Your task to perform on an android device: Open battery settings Image 0: 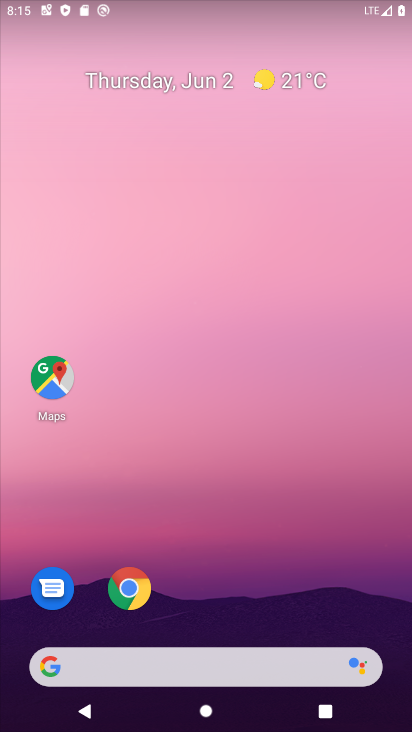
Step 0: drag from (219, 579) to (226, 234)
Your task to perform on an android device: Open battery settings Image 1: 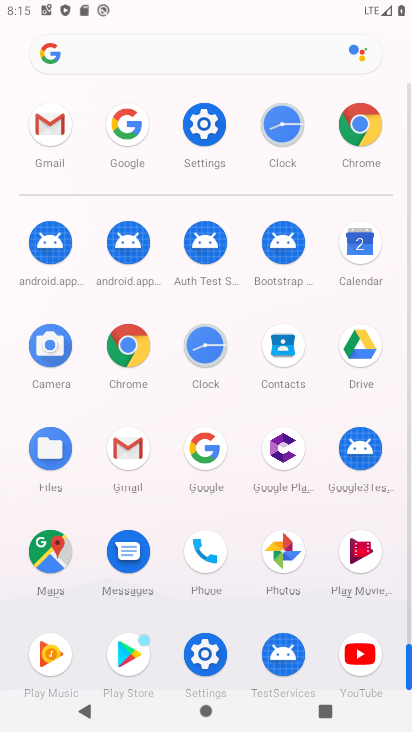
Step 1: click (208, 144)
Your task to perform on an android device: Open battery settings Image 2: 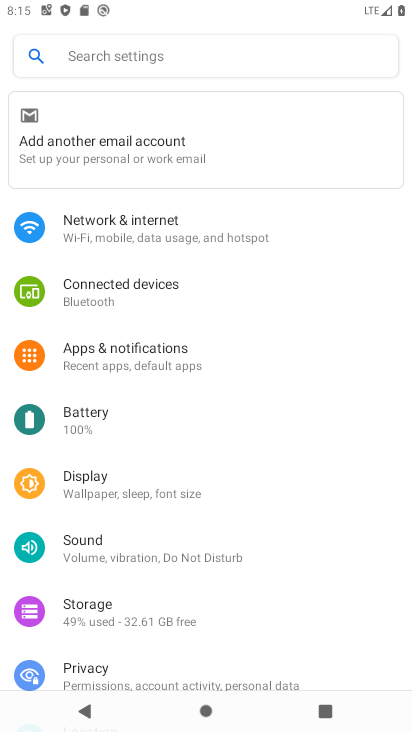
Step 2: click (139, 424)
Your task to perform on an android device: Open battery settings Image 3: 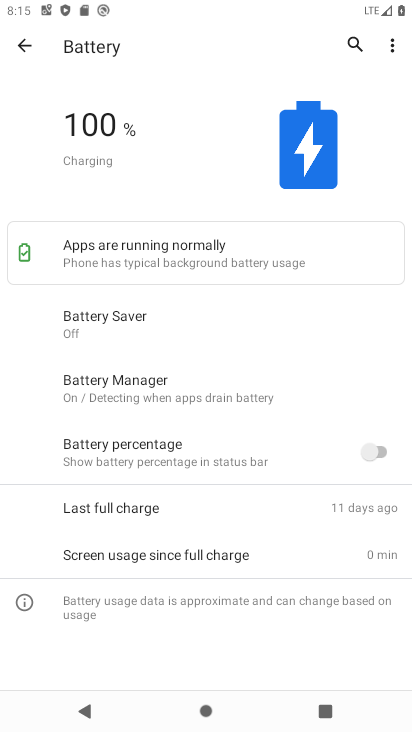
Step 3: task complete